Your task to perform on an android device: turn on javascript in the chrome app Image 0: 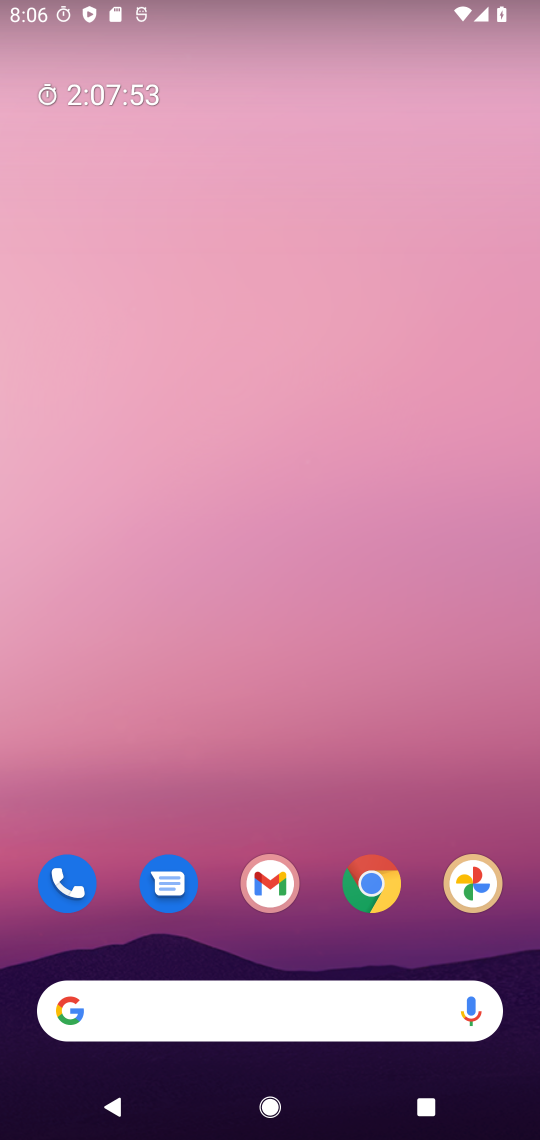
Step 0: click (354, 864)
Your task to perform on an android device: turn on javascript in the chrome app Image 1: 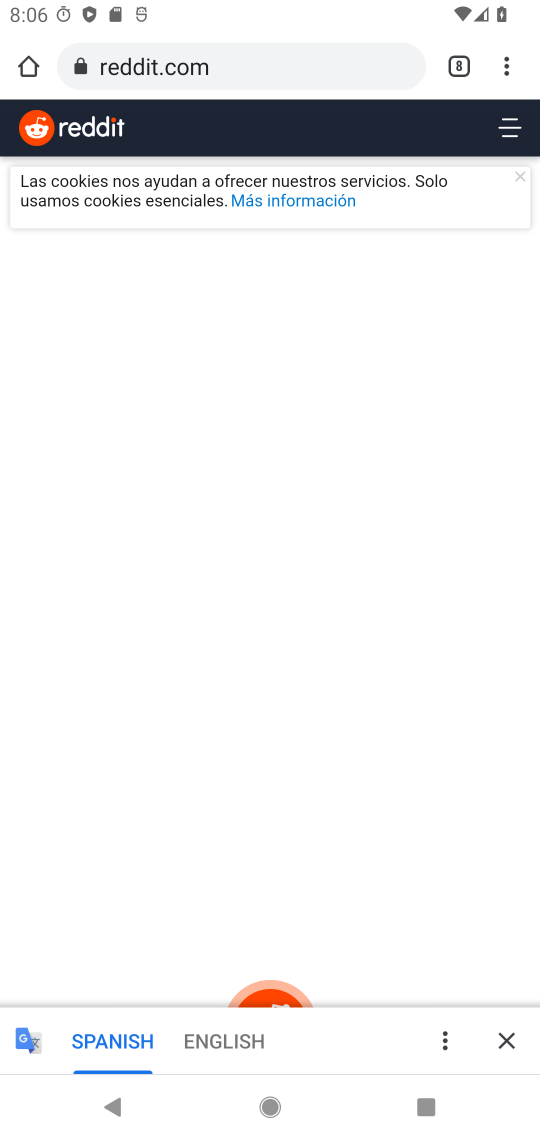
Step 1: click (500, 52)
Your task to perform on an android device: turn on javascript in the chrome app Image 2: 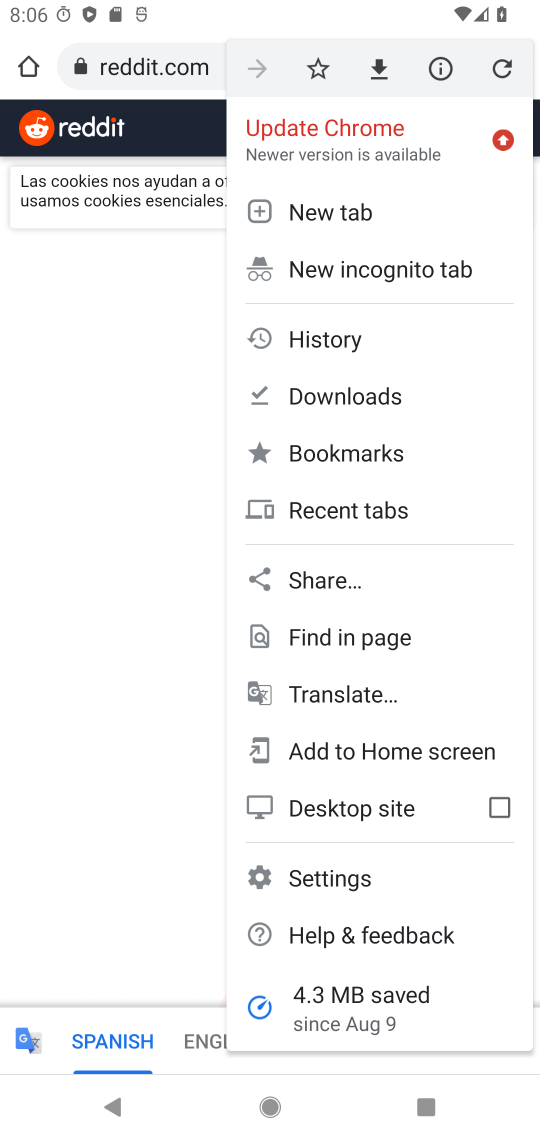
Step 2: click (297, 879)
Your task to perform on an android device: turn on javascript in the chrome app Image 3: 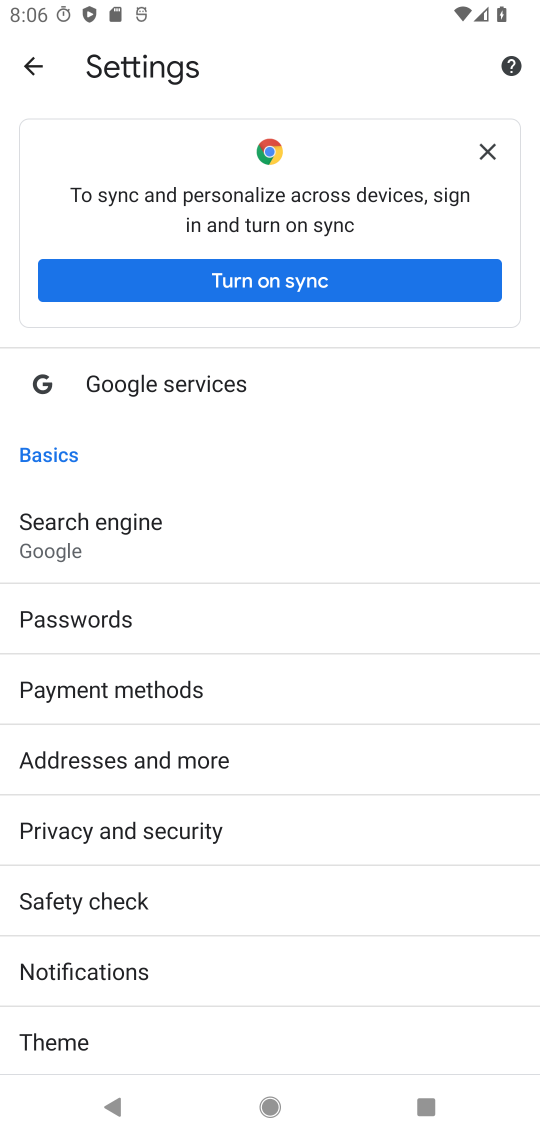
Step 3: drag from (227, 922) to (268, 345)
Your task to perform on an android device: turn on javascript in the chrome app Image 4: 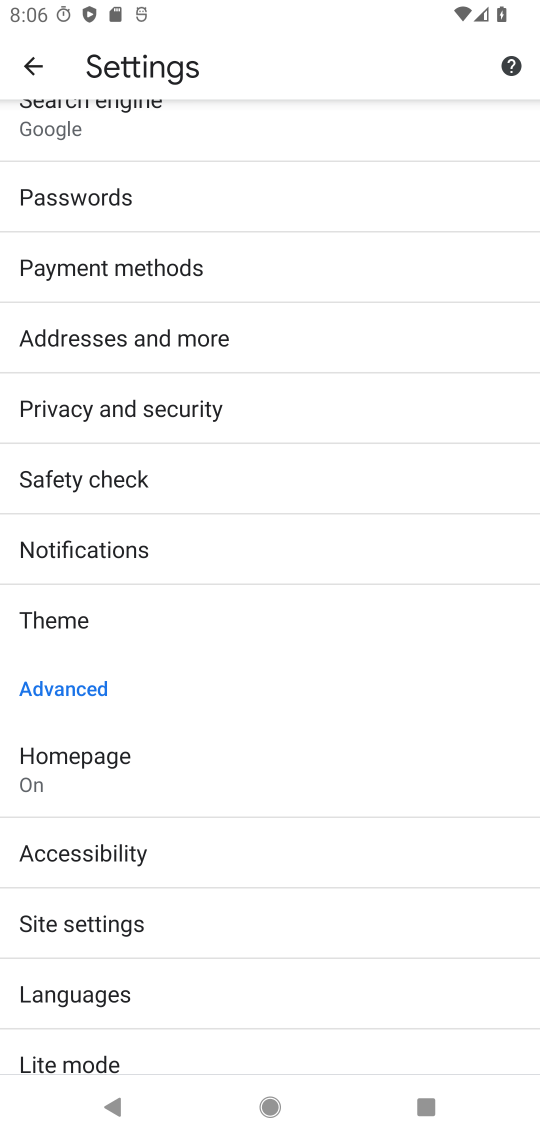
Step 4: click (153, 919)
Your task to perform on an android device: turn on javascript in the chrome app Image 5: 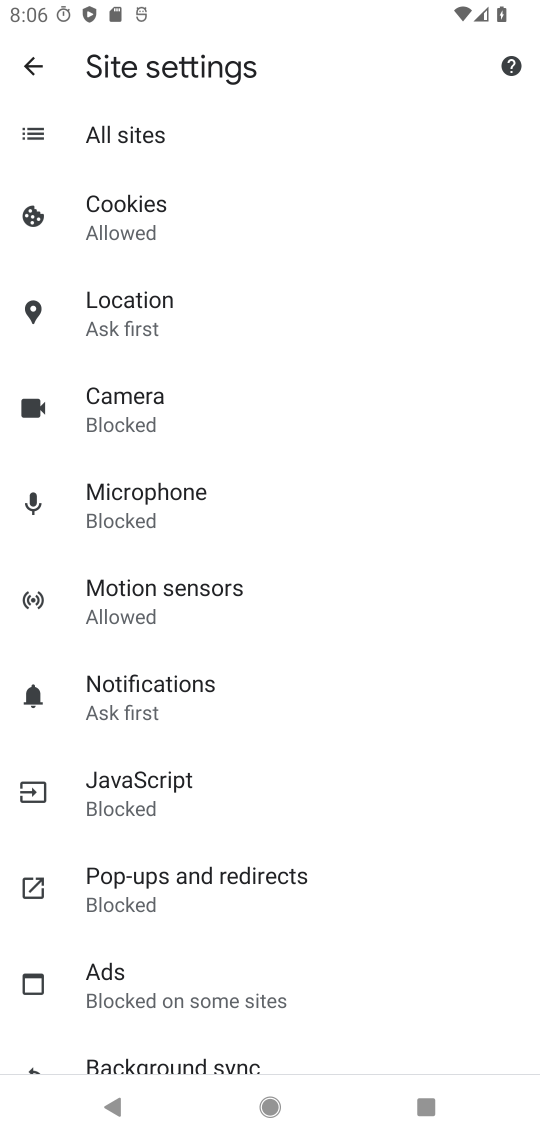
Step 5: click (144, 807)
Your task to perform on an android device: turn on javascript in the chrome app Image 6: 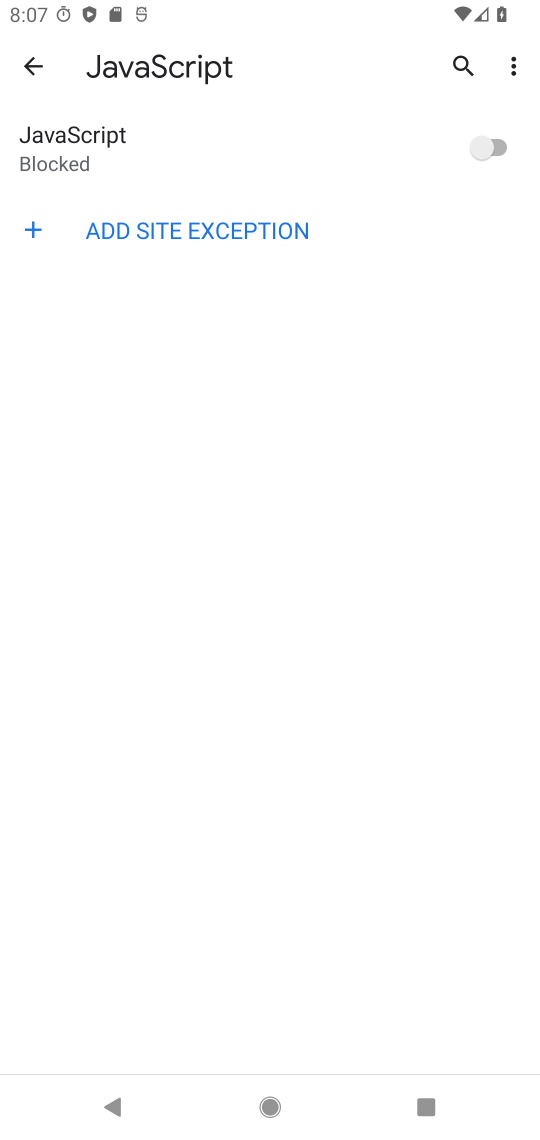
Step 6: click (493, 132)
Your task to perform on an android device: turn on javascript in the chrome app Image 7: 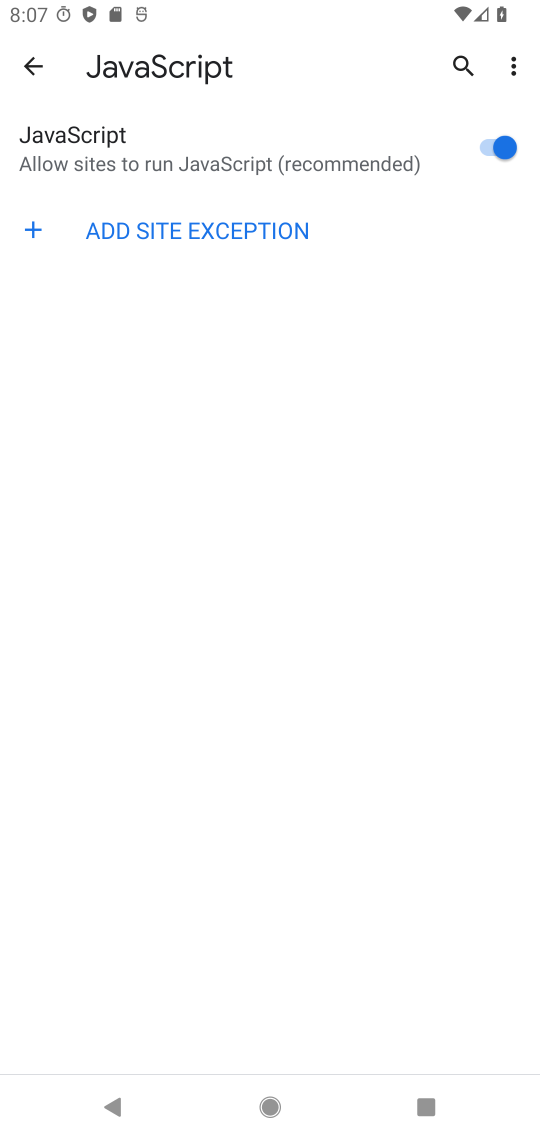
Step 7: task complete